Your task to perform on an android device: Open Wikipedia Image 0: 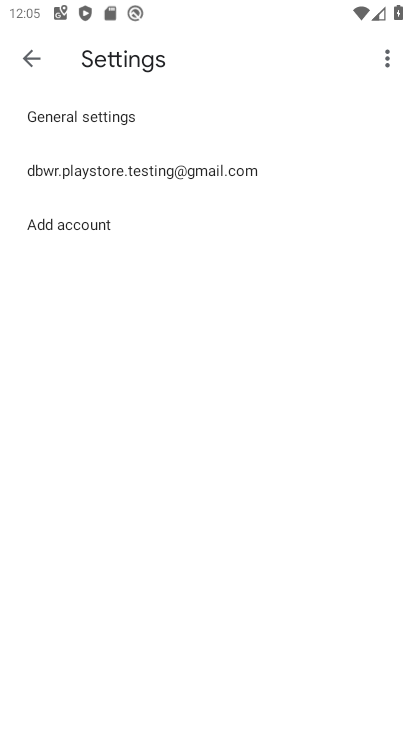
Step 0: press home button
Your task to perform on an android device: Open Wikipedia Image 1: 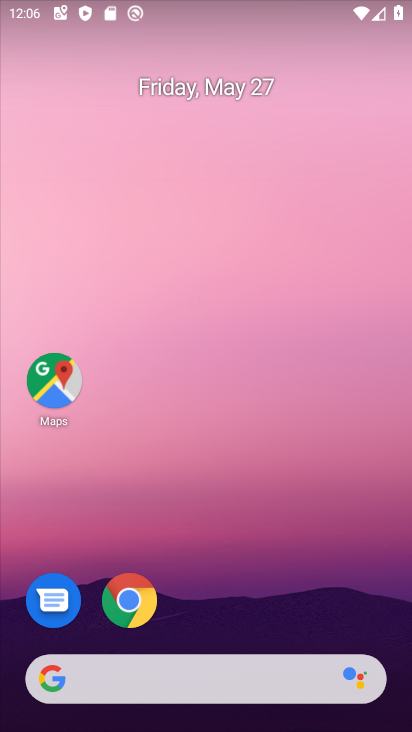
Step 1: click (128, 599)
Your task to perform on an android device: Open Wikipedia Image 2: 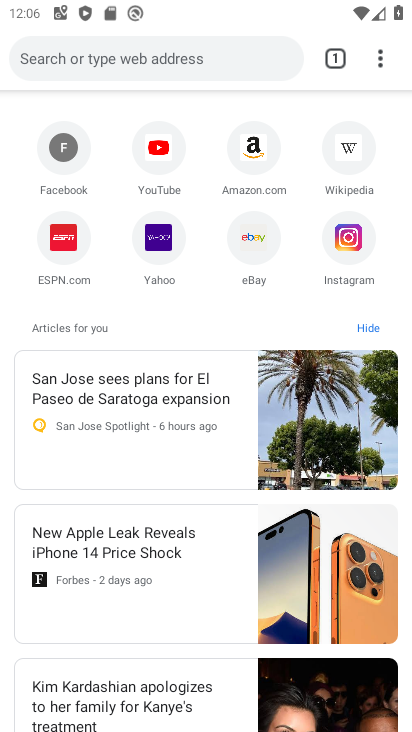
Step 2: click (341, 148)
Your task to perform on an android device: Open Wikipedia Image 3: 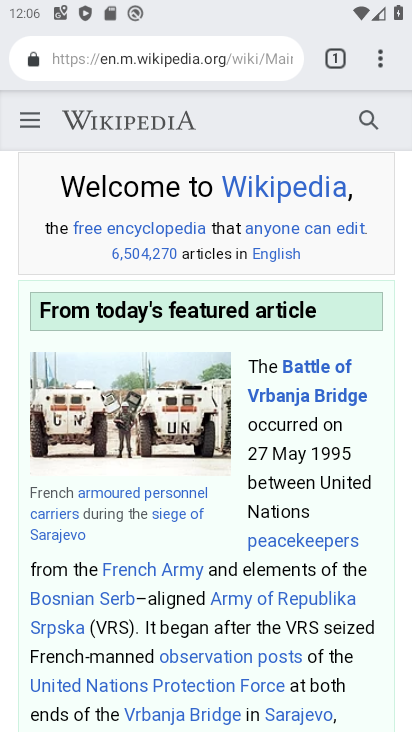
Step 3: task complete